Your task to perform on an android device: toggle show notifications on the lock screen Image 0: 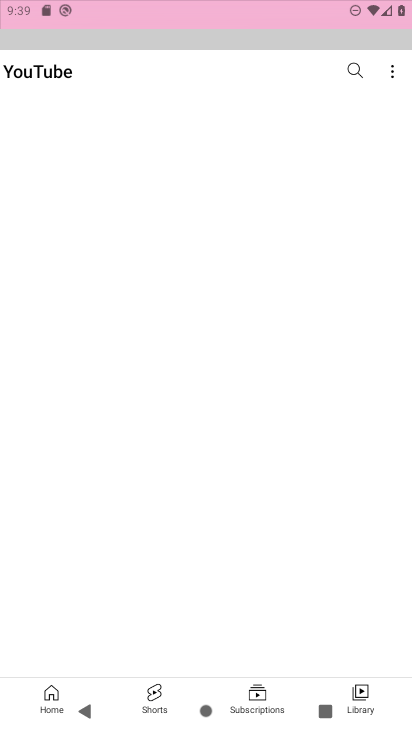
Step 0: click (240, 313)
Your task to perform on an android device: toggle show notifications on the lock screen Image 1: 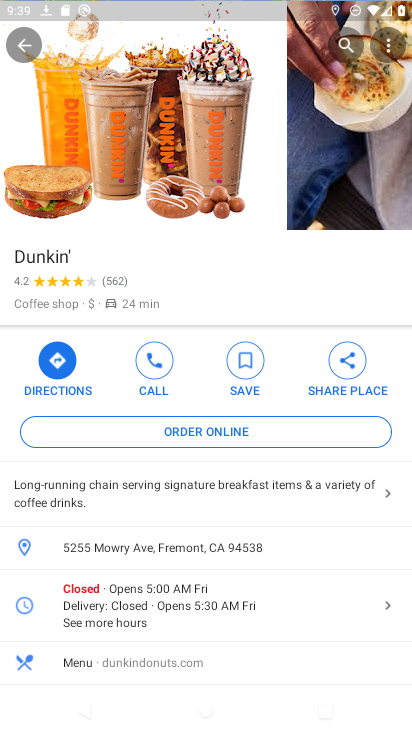
Step 1: press home button
Your task to perform on an android device: toggle show notifications on the lock screen Image 2: 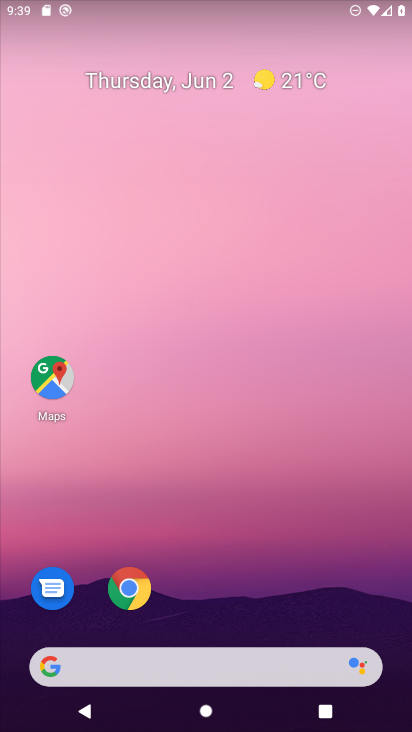
Step 2: drag from (221, 514) to (235, 209)
Your task to perform on an android device: toggle show notifications on the lock screen Image 3: 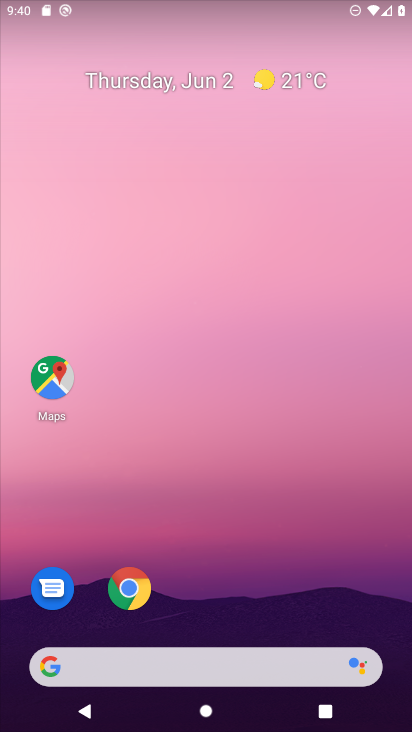
Step 3: drag from (248, 555) to (283, 22)
Your task to perform on an android device: toggle show notifications on the lock screen Image 4: 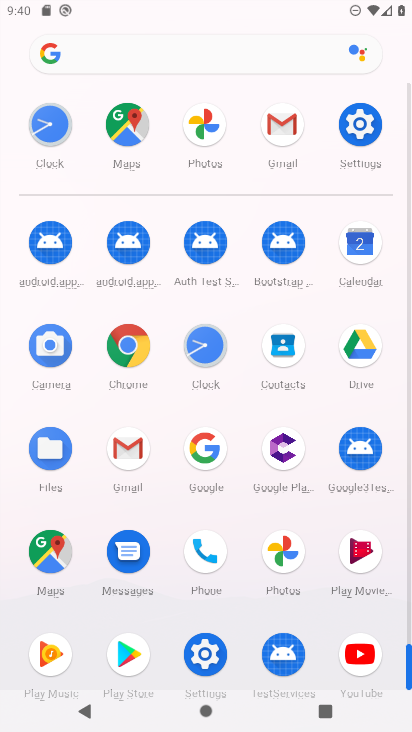
Step 4: click (367, 126)
Your task to perform on an android device: toggle show notifications on the lock screen Image 5: 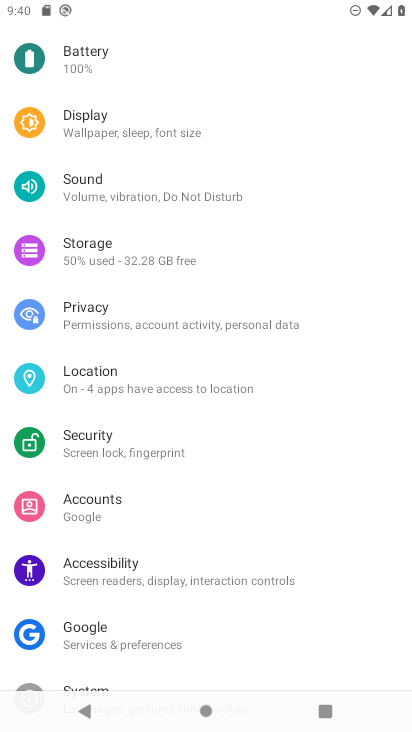
Step 5: drag from (220, 248) to (148, 614)
Your task to perform on an android device: toggle show notifications on the lock screen Image 6: 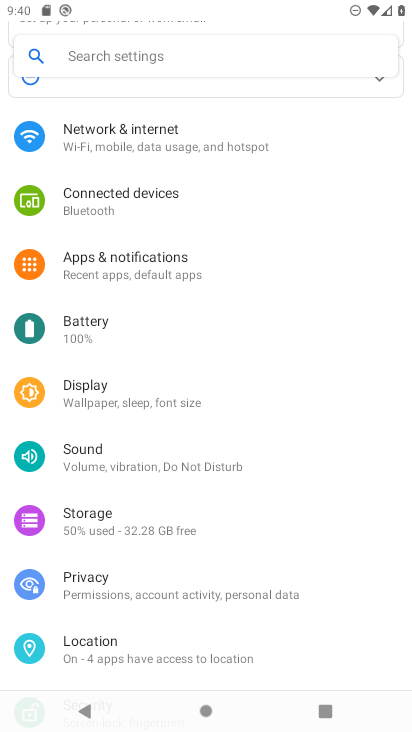
Step 6: click (193, 261)
Your task to perform on an android device: toggle show notifications on the lock screen Image 7: 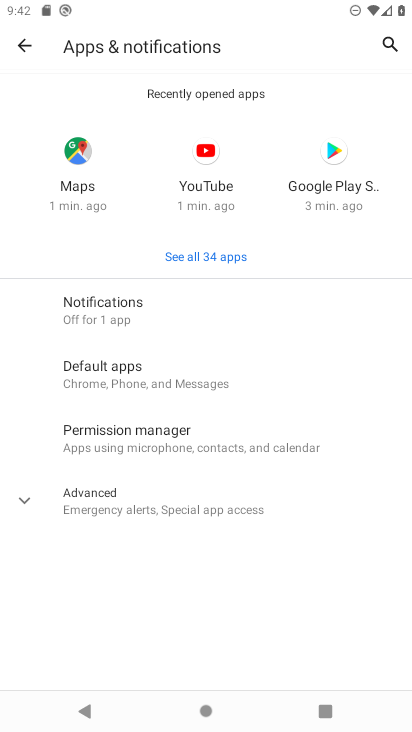
Step 7: click (176, 309)
Your task to perform on an android device: toggle show notifications on the lock screen Image 8: 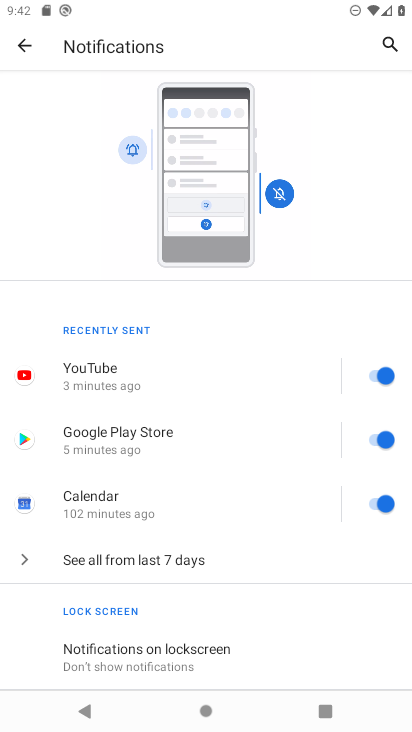
Step 8: click (118, 658)
Your task to perform on an android device: toggle show notifications on the lock screen Image 9: 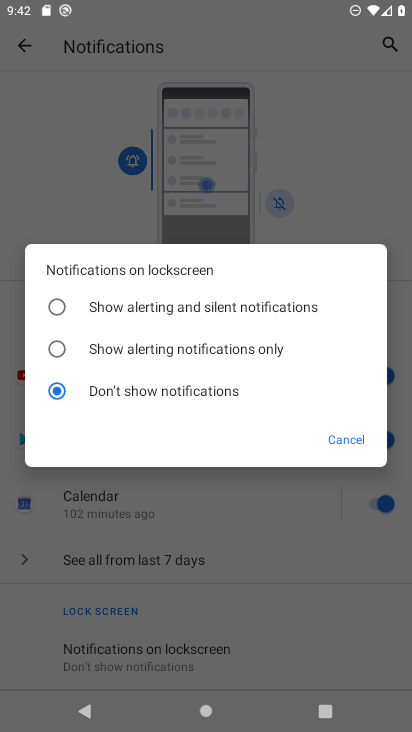
Step 9: click (142, 312)
Your task to perform on an android device: toggle show notifications on the lock screen Image 10: 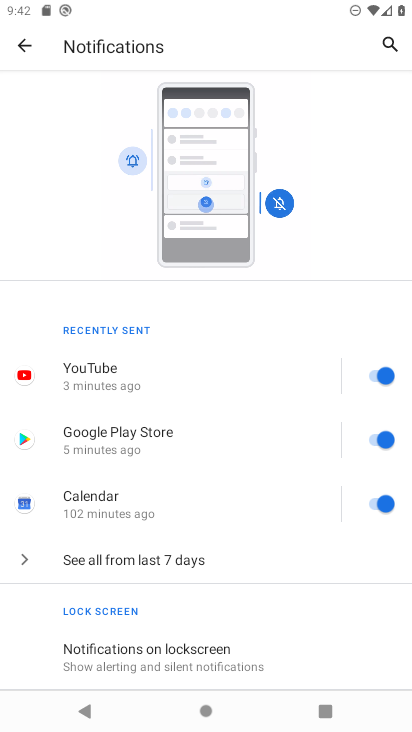
Step 10: task complete